Your task to perform on an android device: change the clock style Image 0: 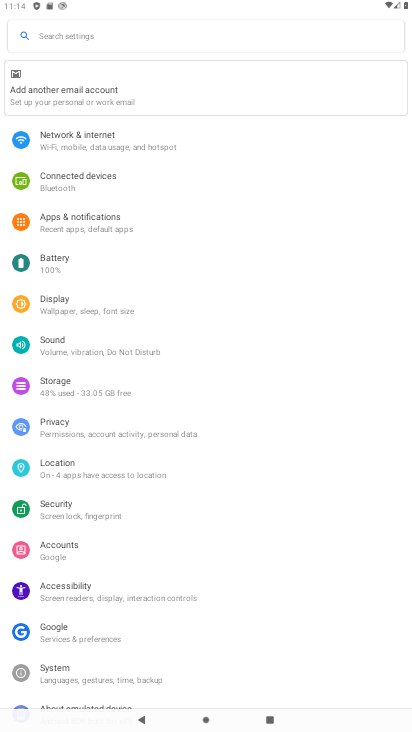
Step 0: press home button
Your task to perform on an android device: change the clock style Image 1: 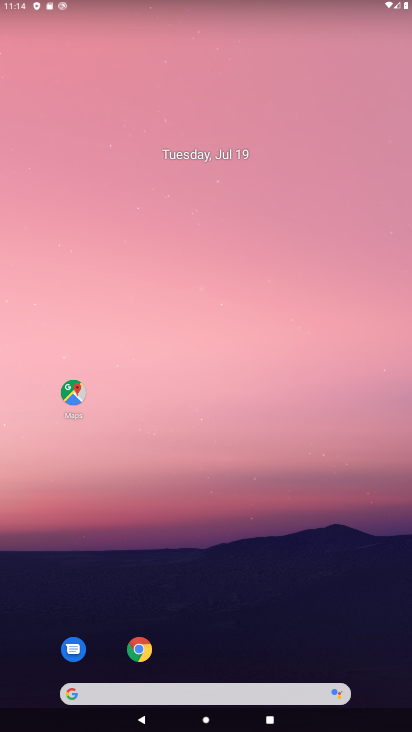
Step 1: drag from (210, 572) to (208, 157)
Your task to perform on an android device: change the clock style Image 2: 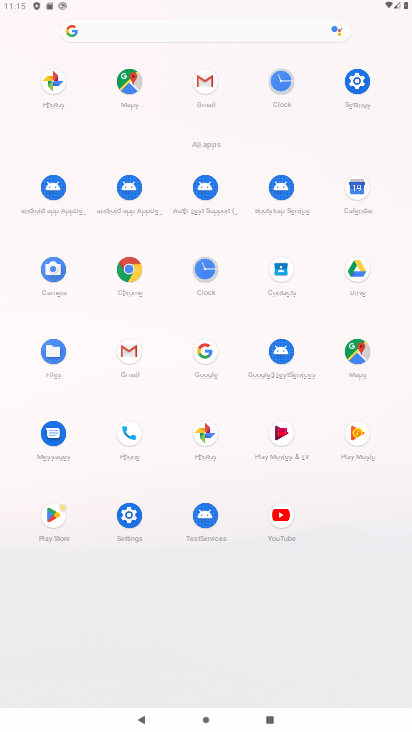
Step 2: click (211, 272)
Your task to perform on an android device: change the clock style Image 3: 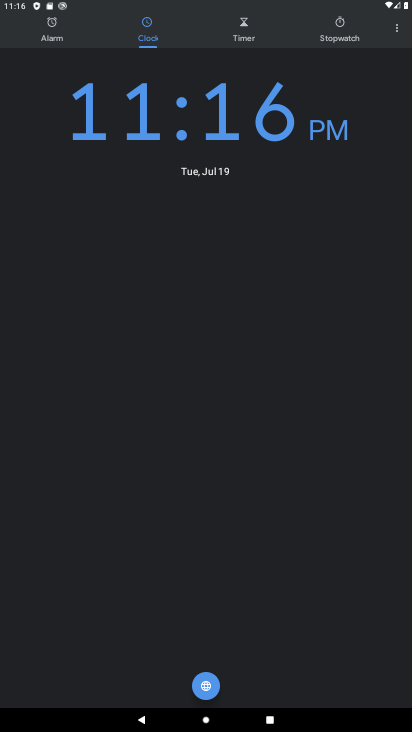
Step 3: click (395, 26)
Your task to perform on an android device: change the clock style Image 4: 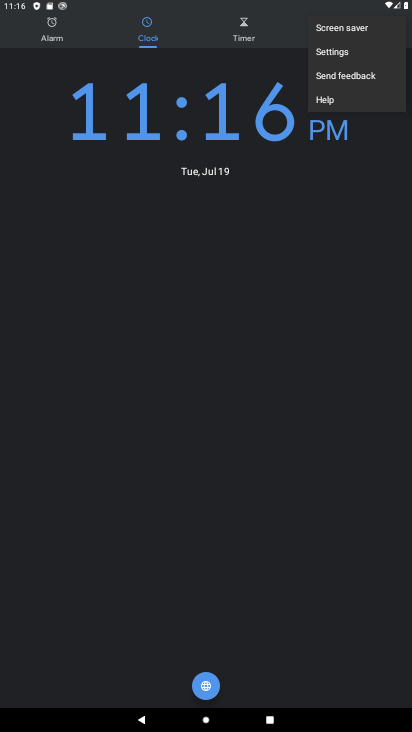
Step 4: click (324, 56)
Your task to perform on an android device: change the clock style Image 5: 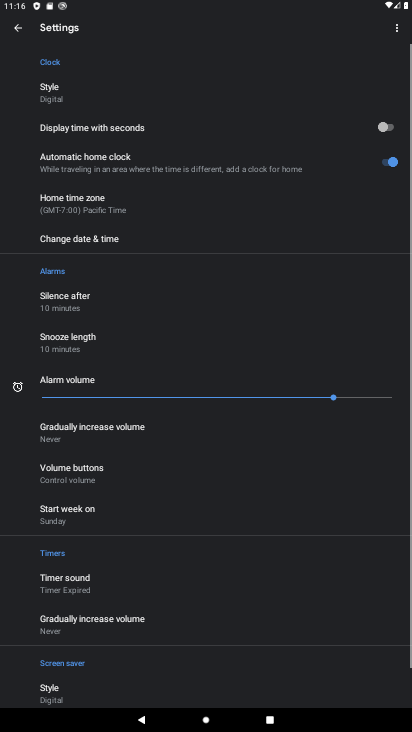
Step 5: click (62, 90)
Your task to perform on an android device: change the clock style Image 6: 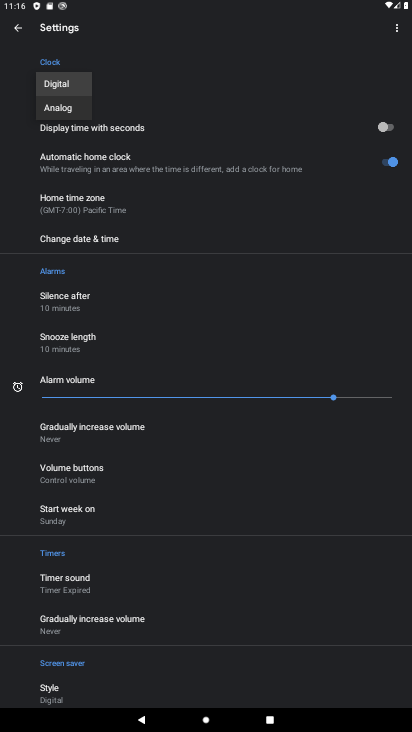
Step 6: click (56, 105)
Your task to perform on an android device: change the clock style Image 7: 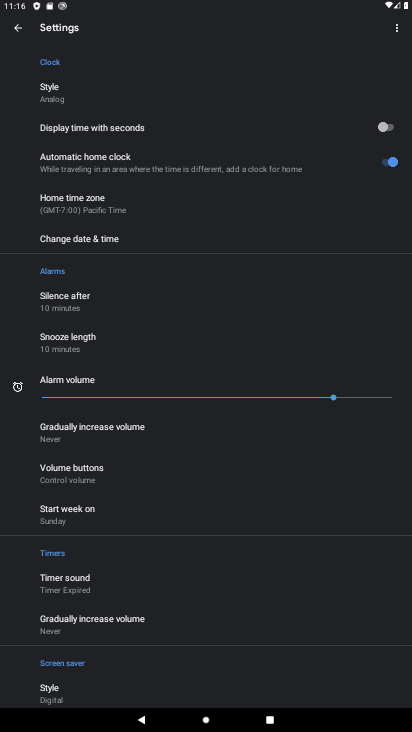
Step 7: task complete